Your task to perform on an android device: Open settings Image 0: 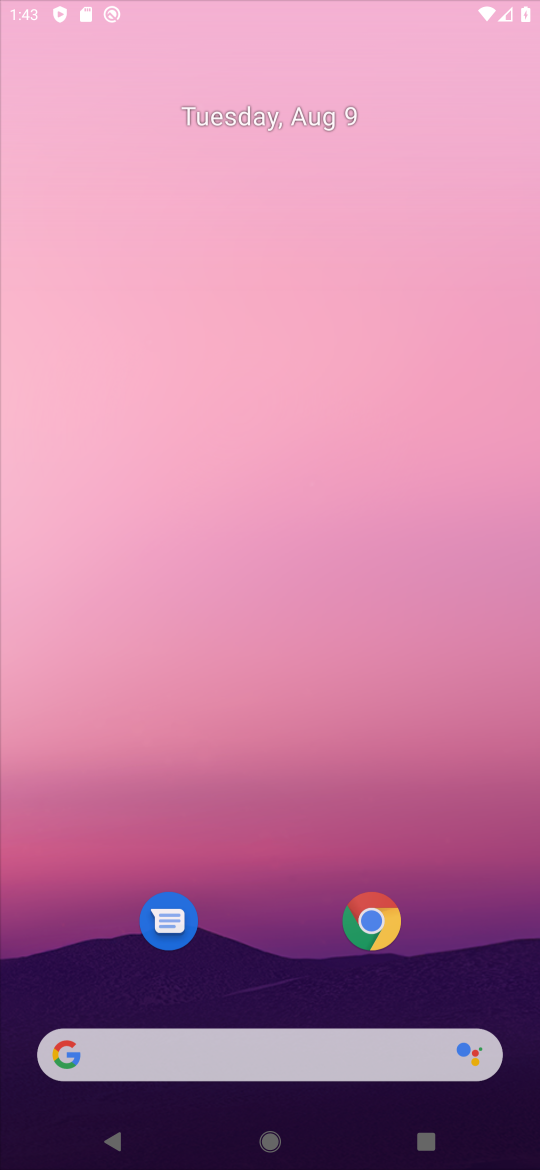
Step 0: press home button
Your task to perform on an android device: Open settings Image 1: 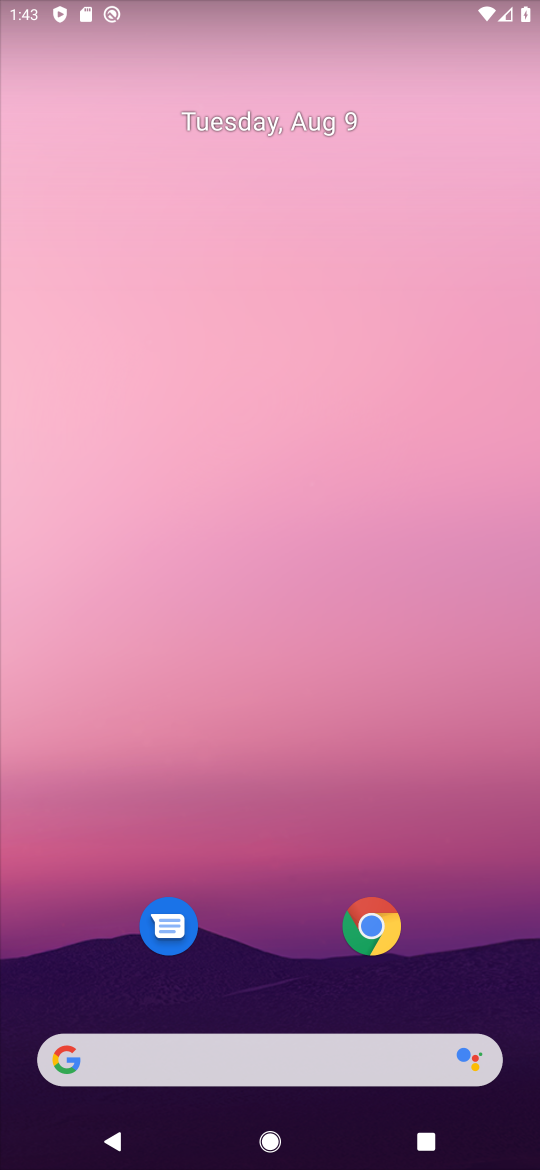
Step 1: drag from (233, 868) to (163, 99)
Your task to perform on an android device: Open settings Image 2: 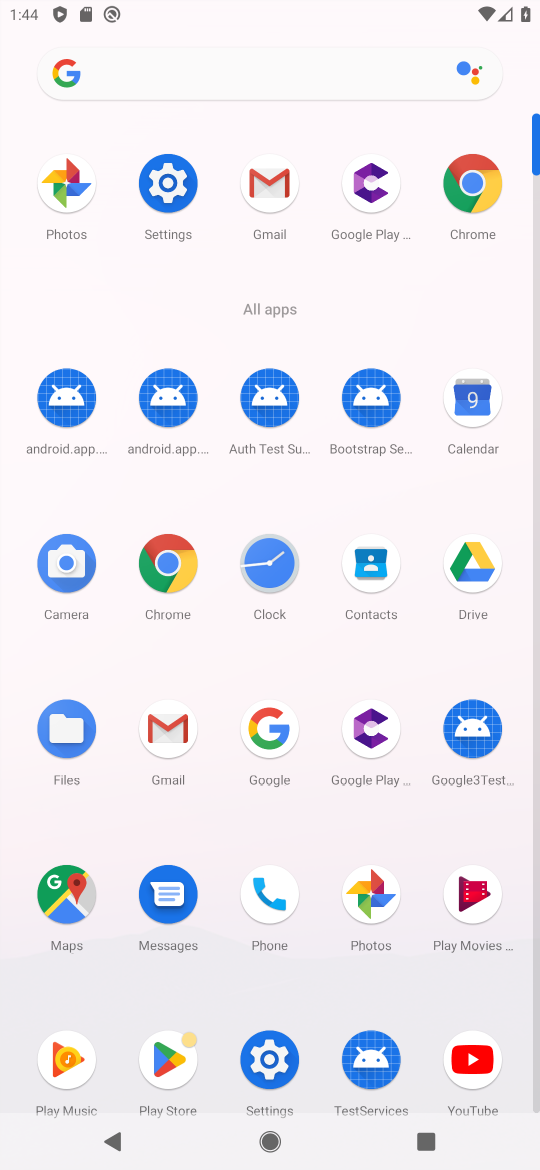
Step 2: click (276, 1075)
Your task to perform on an android device: Open settings Image 3: 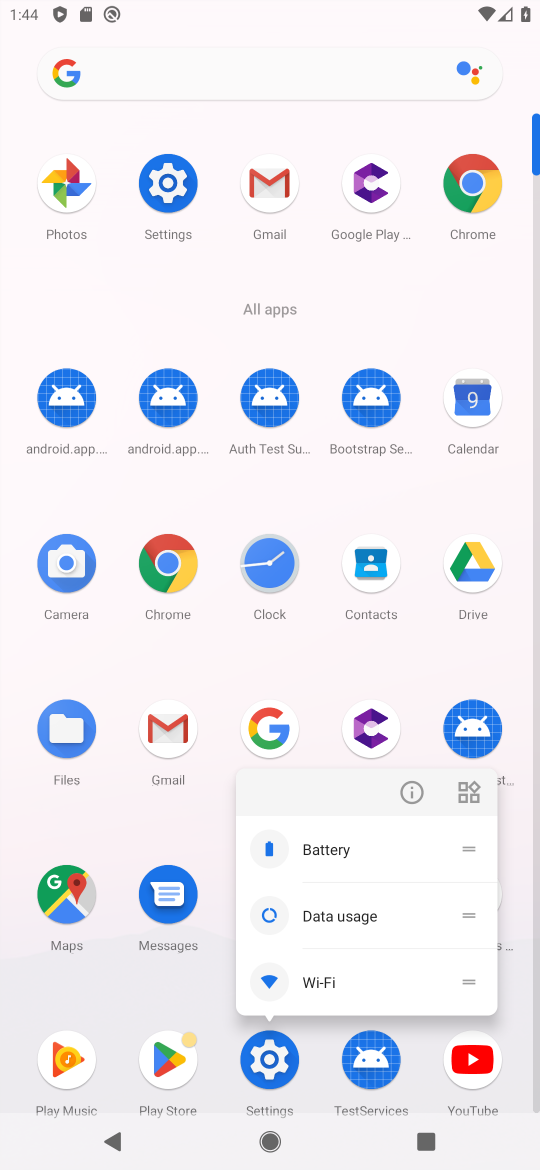
Step 3: click (270, 1054)
Your task to perform on an android device: Open settings Image 4: 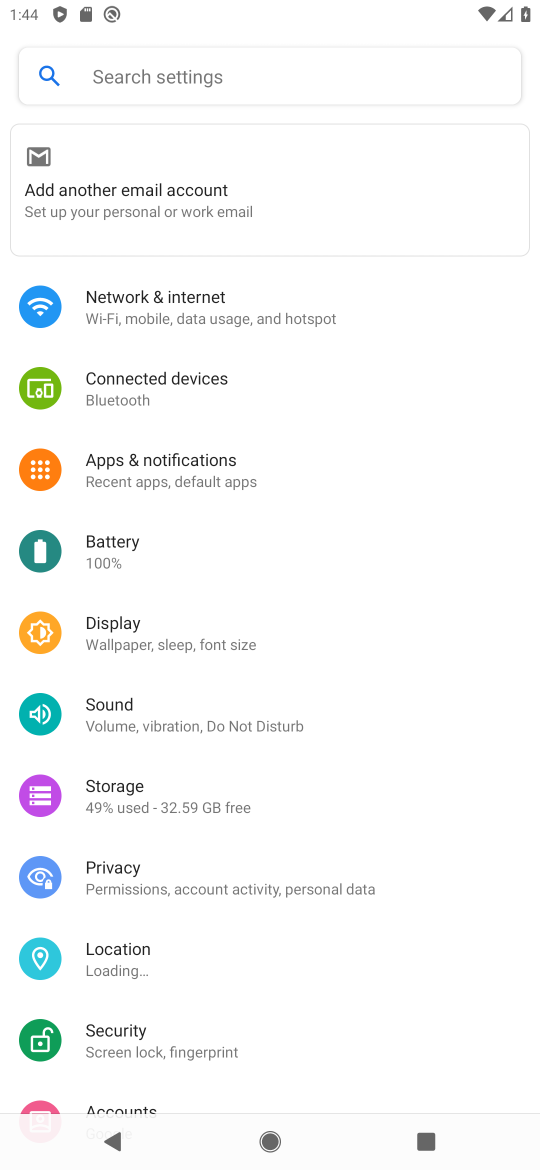
Step 4: task complete